Your task to perform on an android device: Go to sound settings Image 0: 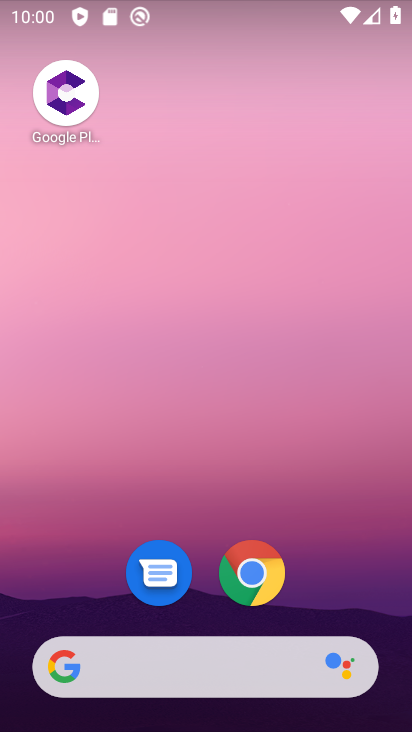
Step 0: drag from (147, 646) to (290, 156)
Your task to perform on an android device: Go to sound settings Image 1: 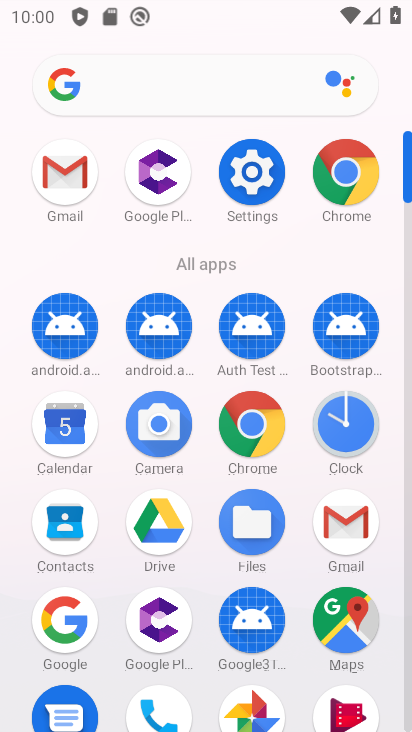
Step 1: click (257, 182)
Your task to perform on an android device: Go to sound settings Image 2: 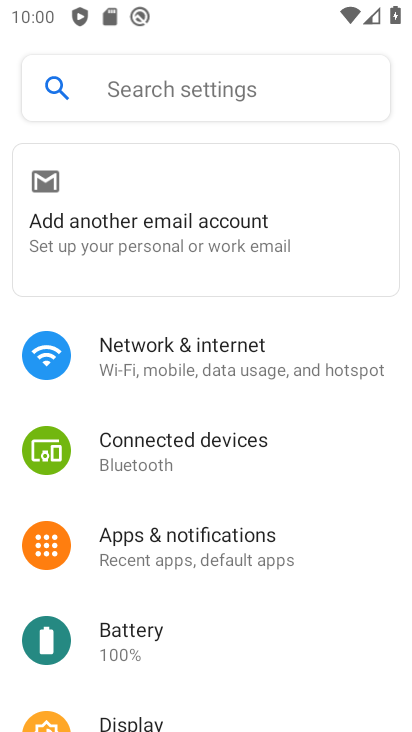
Step 2: drag from (137, 689) to (192, 276)
Your task to perform on an android device: Go to sound settings Image 3: 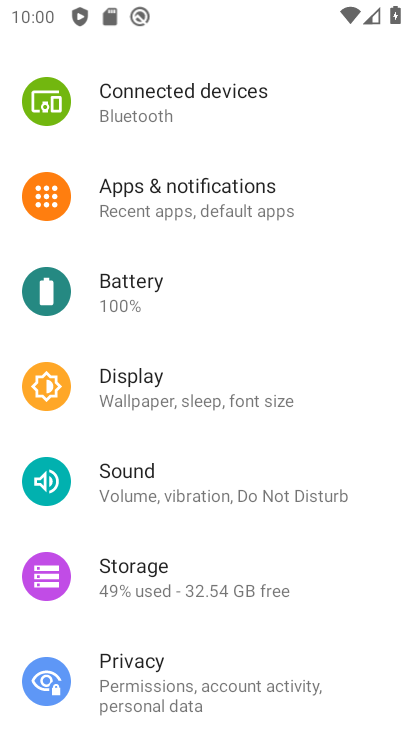
Step 3: click (145, 493)
Your task to perform on an android device: Go to sound settings Image 4: 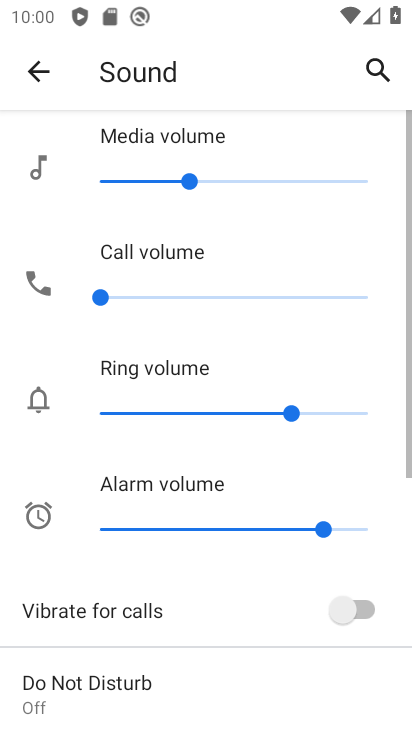
Step 4: drag from (149, 708) to (221, 289)
Your task to perform on an android device: Go to sound settings Image 5: 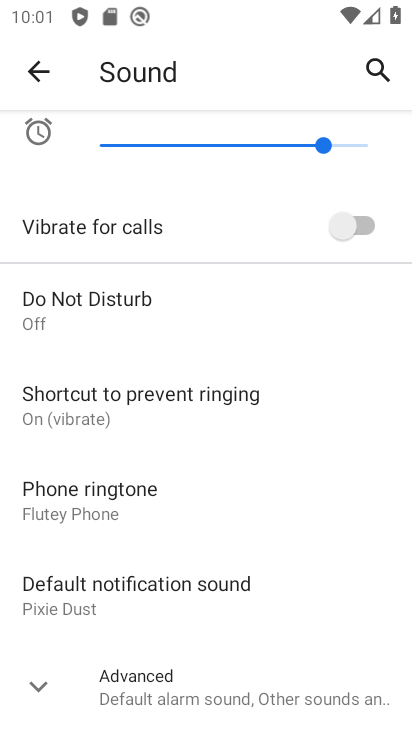
Step 5: click (157, 704)
Your task to perform on an android device: Go to sound settings Image 6: 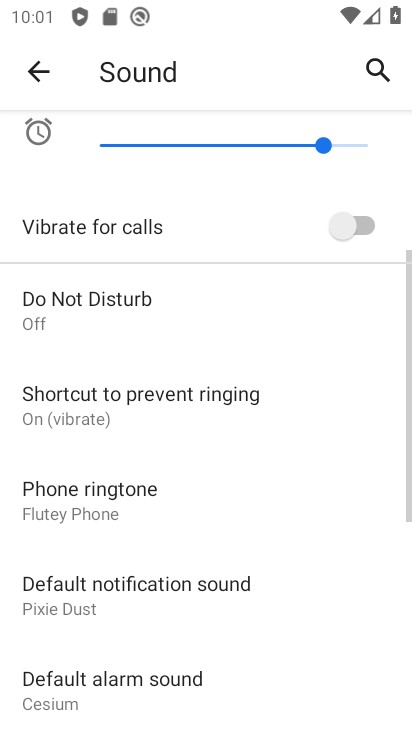
Step 6: task complete